Your task to perform on an android device: Search for sushi restaurants on Maps Image 0: 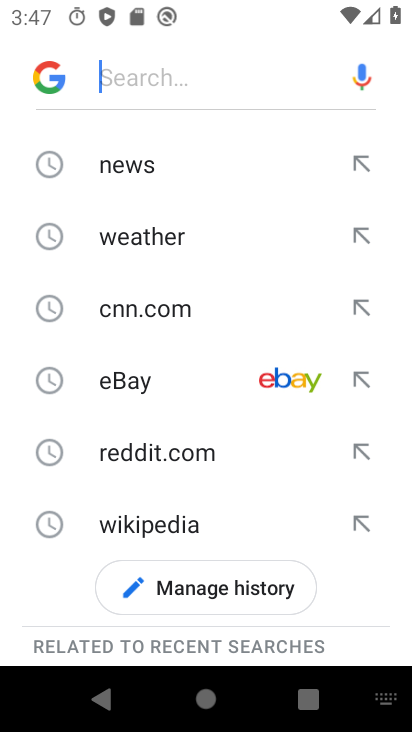
Step 0: press home button
Your task to perform on an android device: Search for sushi restaurants on Maps Image 1: 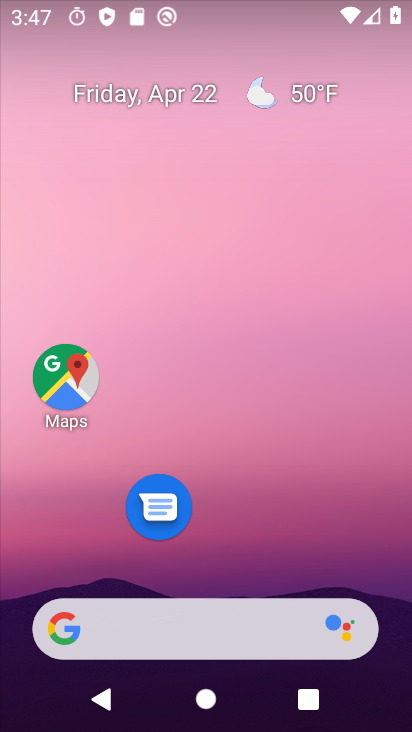
Step 1: click (65, 376)
Your task to perform on an android device: Search for sushi restaurants on Maps Image 2: 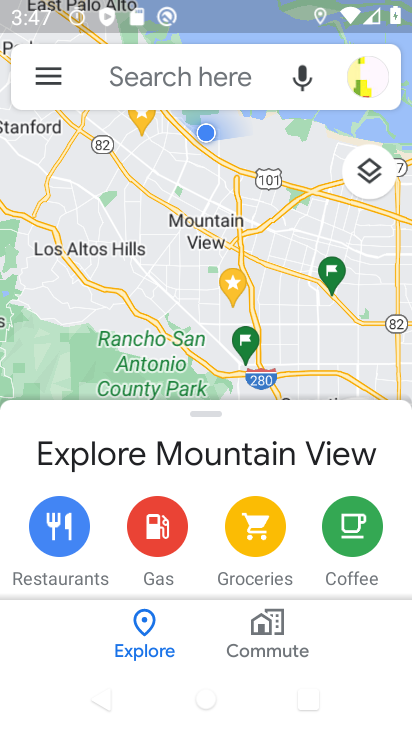
Step 2: click (149, 69)
Your task to perform on an android device: Search for sushi restaurants on Maps Image 3: 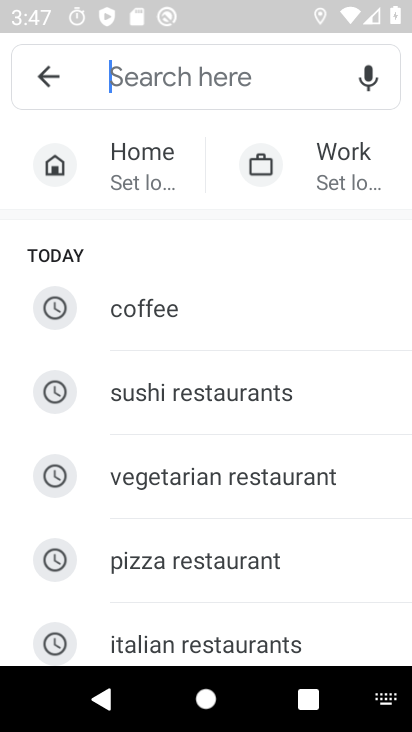
Step 3: click (202, 389)
Your task to perform on an android device: Search for sushi restaurants on Maps Image 4: 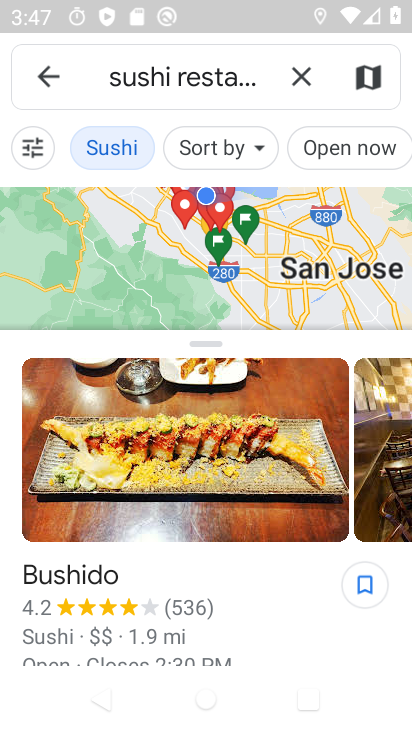
Step 4: task complete